Your task to perform on an android device: allow notifications from all sites in the chrome app Image 0: 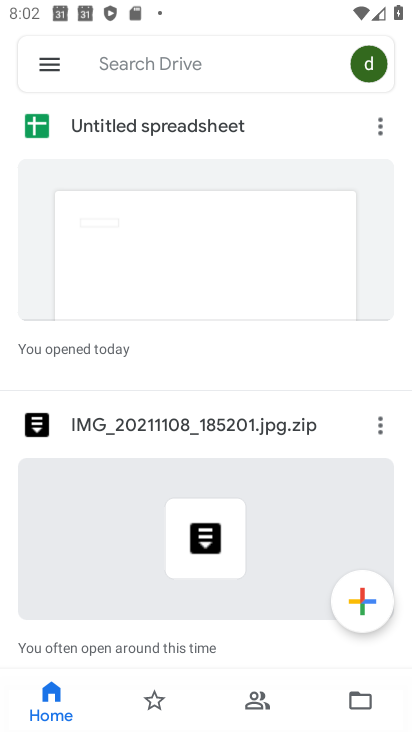
Step 0: press home button
Your task to perform on an android device: allow notifications from all sites in the chrome app Image 1: 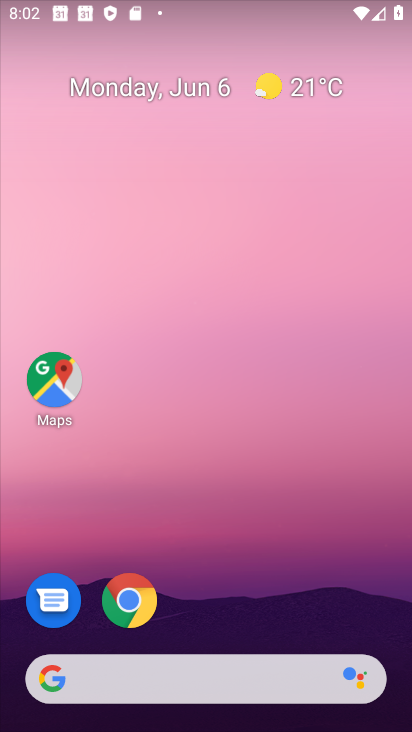
Step 1: click (120, 599)
Your task to perform on an android device: allow notifications from all sites in the chrome app Image 2: 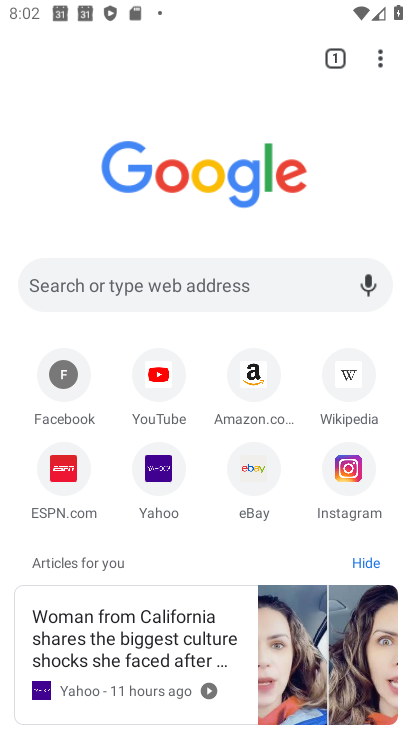
Step 2: click (381, 60)
Your task to perform on an android device: allow notifications from all sites in the chrome app Image 3: 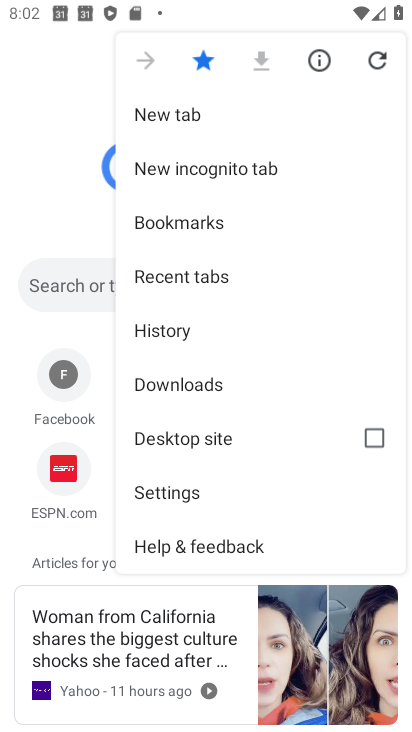
Step 3: click (174, 488)
Your task to perform on an android device: allow notifications from all sites in the chrome app Image 4: 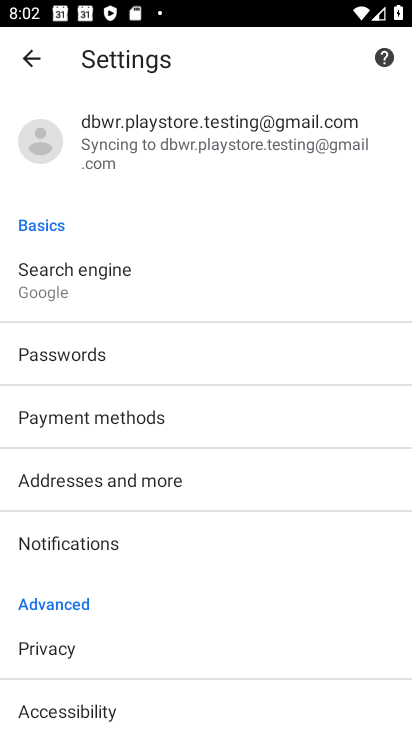
Step 4: click (68, 541)
Your task to perform on an android device: allow notifications from all sites in the chrome app Image 5: 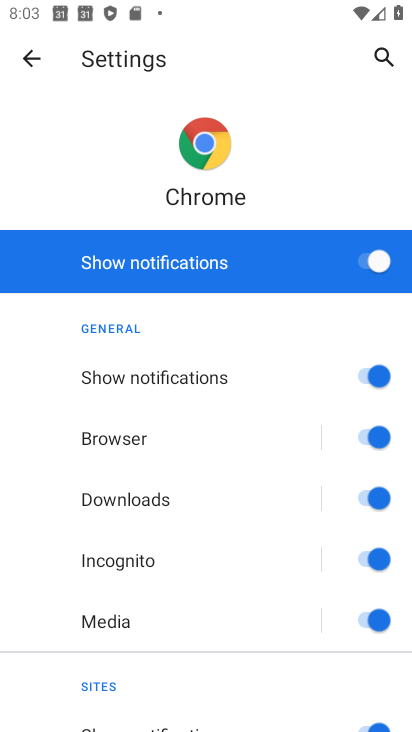
Step 5: task complete